Your task to perform on an android device: open device folders in google photos Image 0: 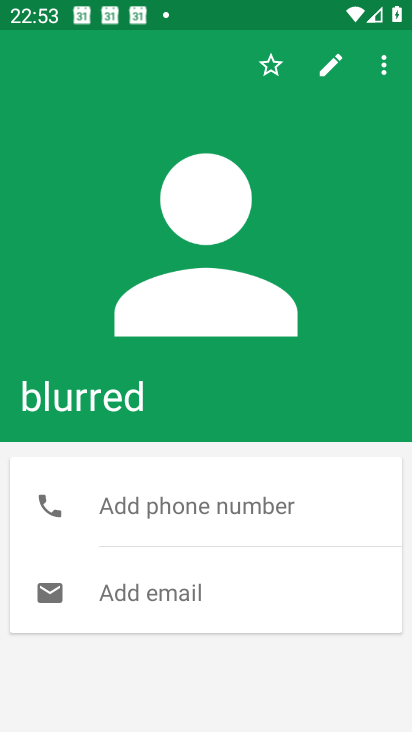
Step 0: press home button
Your task to perform on an android device: open device folders in google photos Image 1: 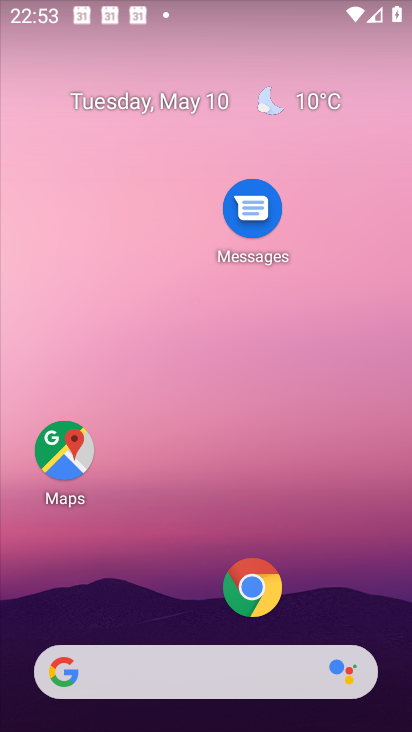
Step 1: drag from (179, 450) to (216, 23)
Your task to perform on an android device: open device folders in google photos Image 2: 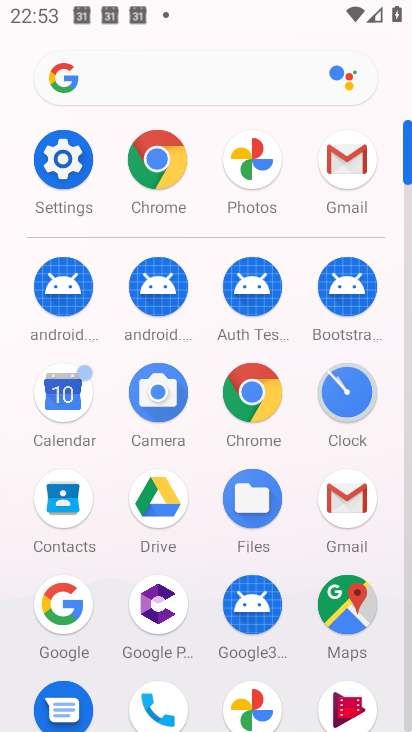
Step 2: click (264, 694)
Your task to perform on an android device: open device folders in google photos Image 3: 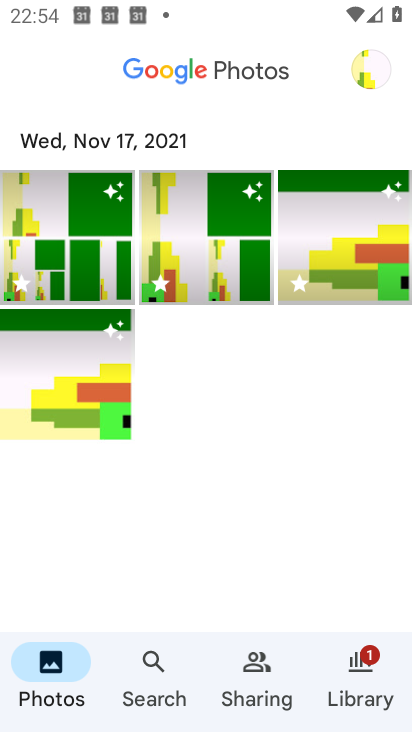
Step 3: click (375, 678)
Your task to perform on an android device: open device folders in google photos Image 4: 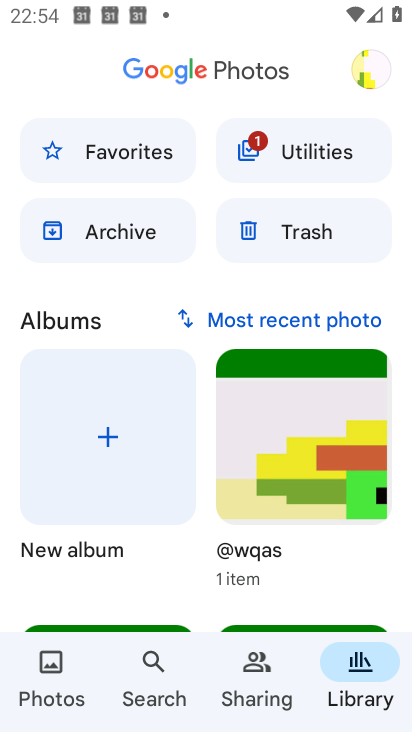
Step 4: drag from (227, 526) to (259, 276)
Your task to perform on an android device: open device folders in google photos Image 5: 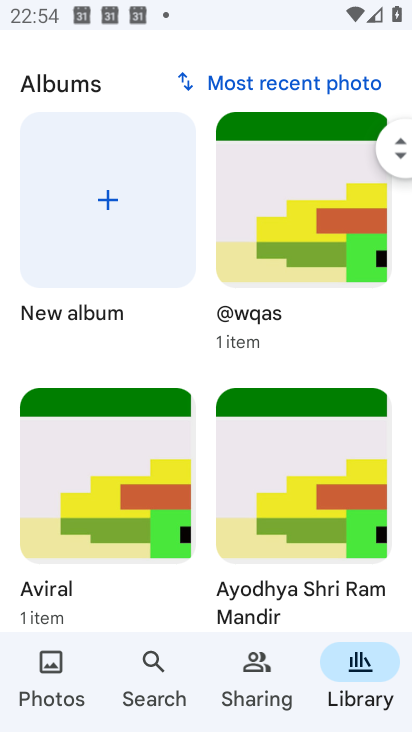
Step 5: click (63, 682)
Your task to perform on an android device: open device folders in google photos Image 6: 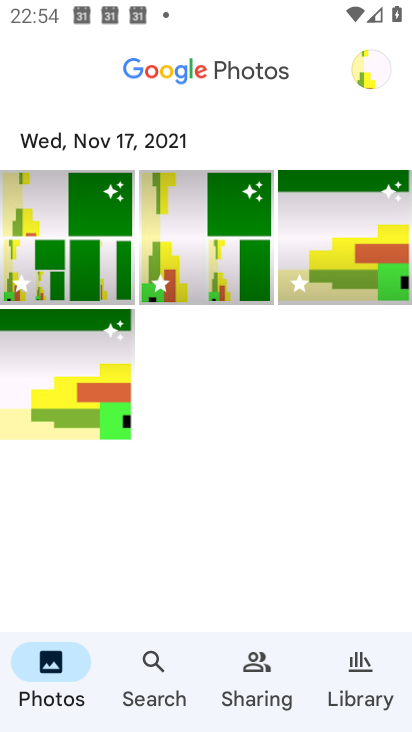
Step 6: click (369, 62)
Your task to perform on an android device: open device folders in google photos Image 7: 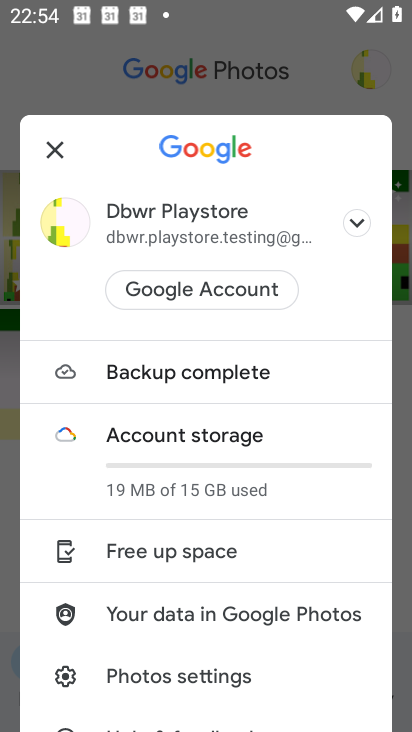
Step 7: task complete